Your task to perform on an android device: Go to internet settings Image 0: 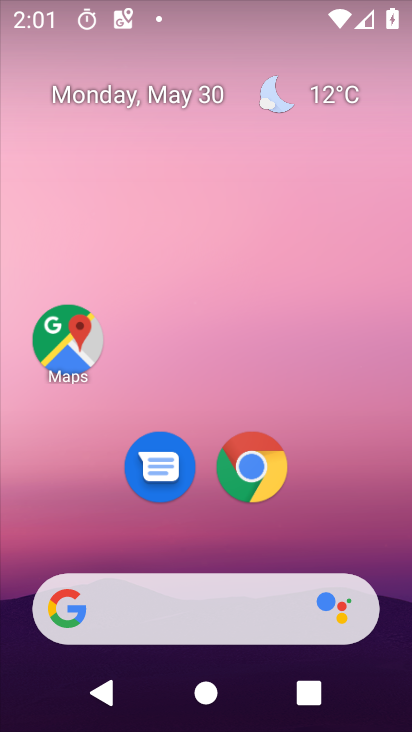
Step 0: drag from (378, 696) to (364, 265)
Your task to perform on an android device: Go to internet settings Image 1: 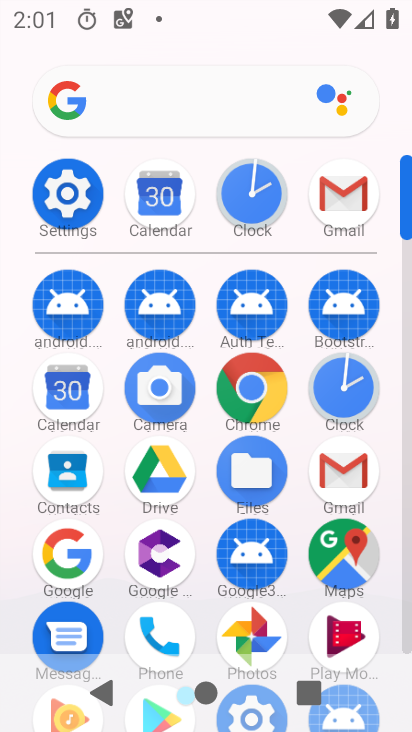
Step 1: click (79, 196)
Your task to perform on an android device: Go to internet settings Image 2: 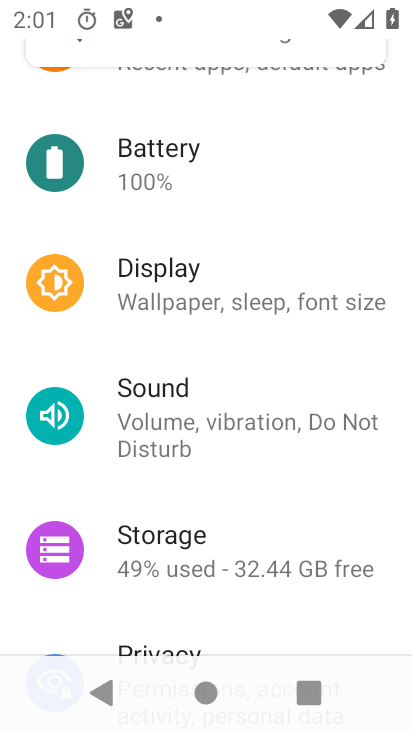
Step 2: drag from (288, 183) to (312, 550)
Your task to perform on an android device: Go to internet settings Image 3: 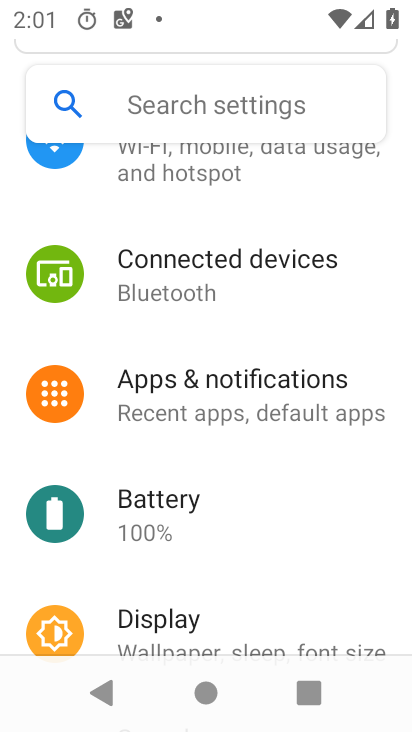
Step 3: drag from (303, 219) to (333, 567)
Your task to perform on an android device: Go to internet settings Image 4: 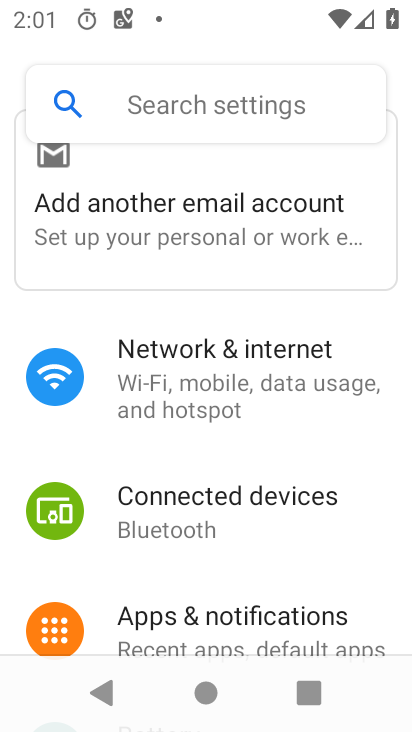
Step 4: click (200, 366)
Your task to perform on an android device: Go to internet settings Image 5: 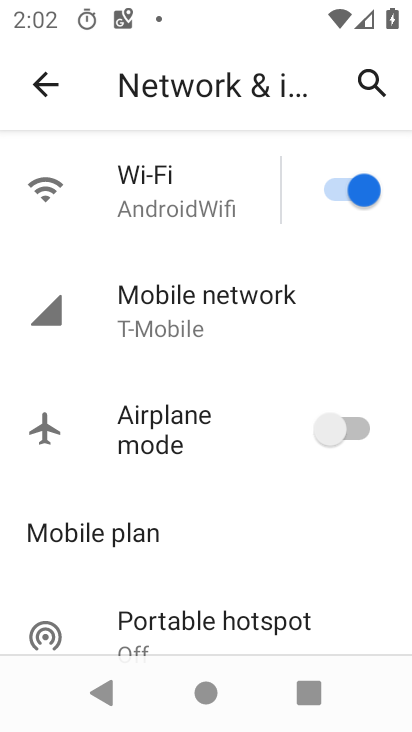
Step 5: drag from (206, 498) to (208, 379)
Your task to perform on an android device: Go to internet settings Image 6: 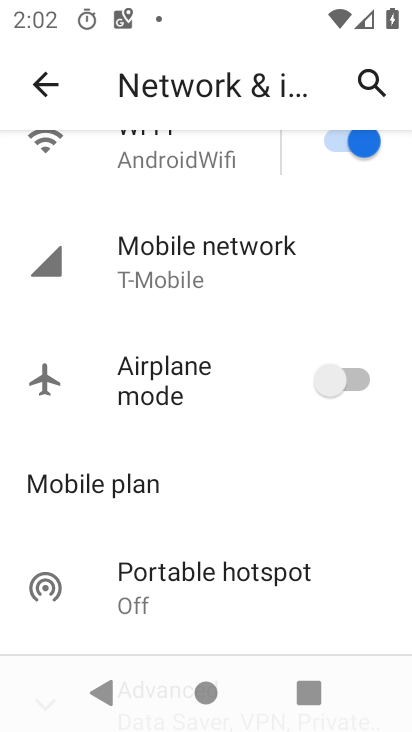
Step 6: click (183, 582)
Your task to perform on an android device: Go to internet settings Image 7: 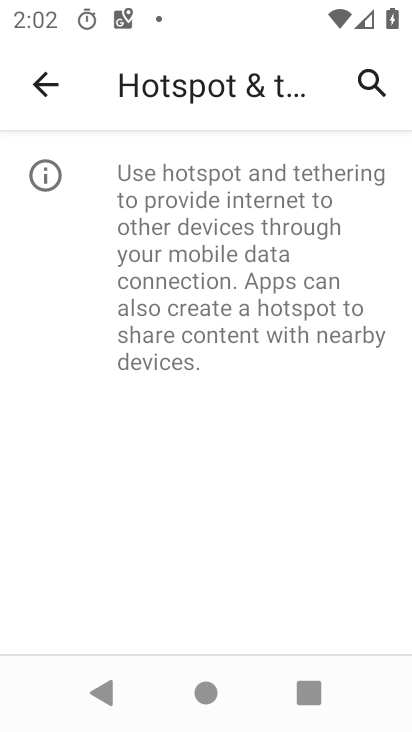
Step 7: click (38, 82)
Your task to perform on an android device: Go to internet settings Image 8: 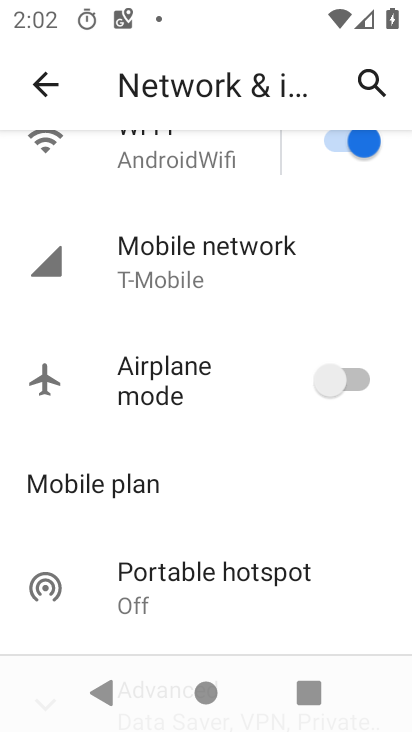
Step 8: click (168, 262)
Your task to perform on an android device: Go to internet settings Image 9: 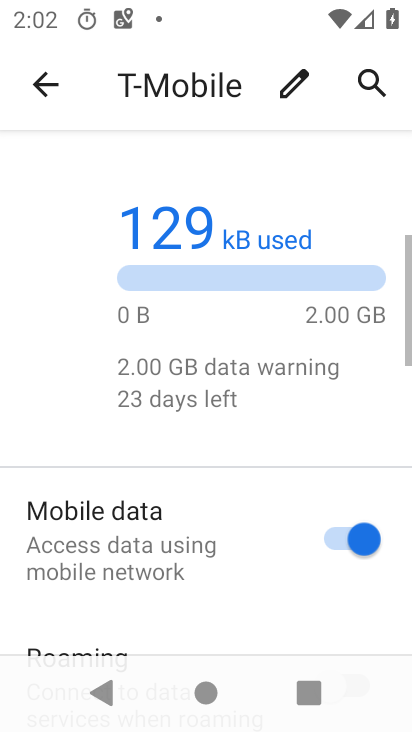
Step 9: drag from (230, 585) to (211, 202)
Your task to perform on an android device: Go to internet settings Image 10: 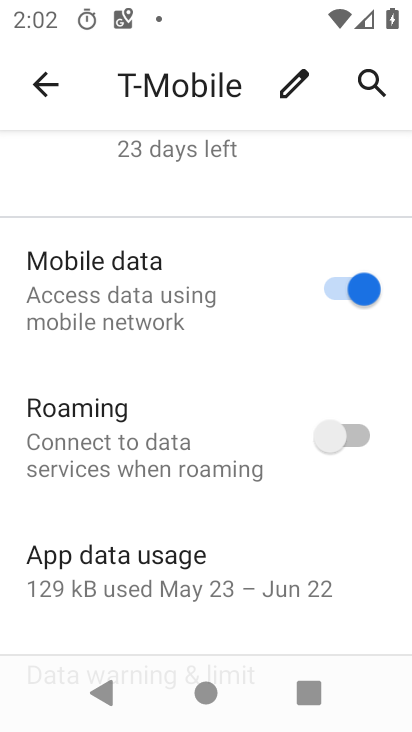
Step 10: drag from (247, 600) to (251, 314)
Your task to perform on an android device: Go to internet settings Image 11: 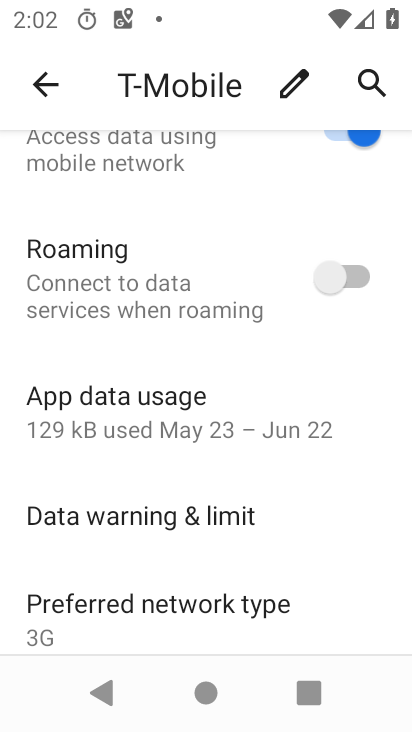
Step 11: drag from (328, 630) to (301, 259)
Your task to perform on an android device: Go to internet settings Image 12: 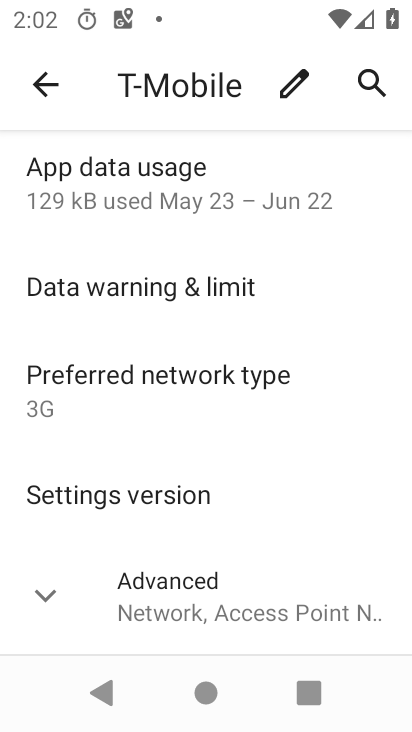
Step 12: click (24, 600)
Your task to perform on an android device: Go to internet settings Image 13: 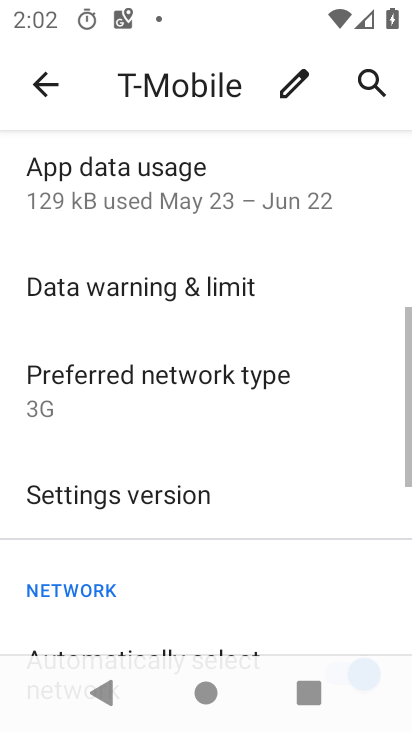
Step 13: task complete